Your task to perform on an android device: See recent photos Image 0: 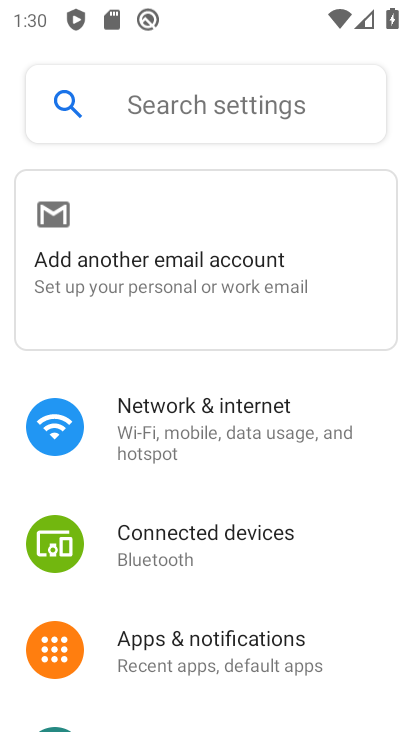
Step 0: press home button
Your task to perform on an android device: See recent photos Image 1: 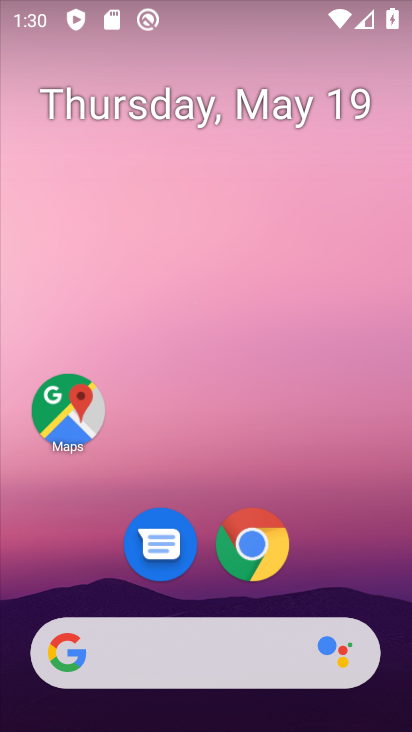
Step 1: drag from (213, 697) to (225, 242)
Your task to perform on an android device: See recent photos Image 2: 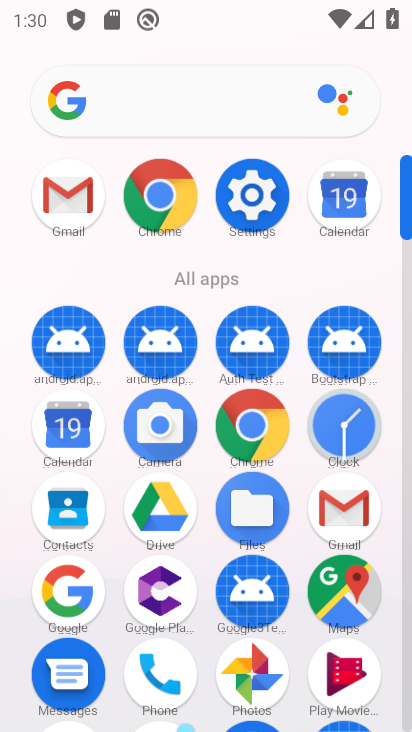
Step 2: click (254, 661)
Your task to perform on an android device: See recent photos Image 3: 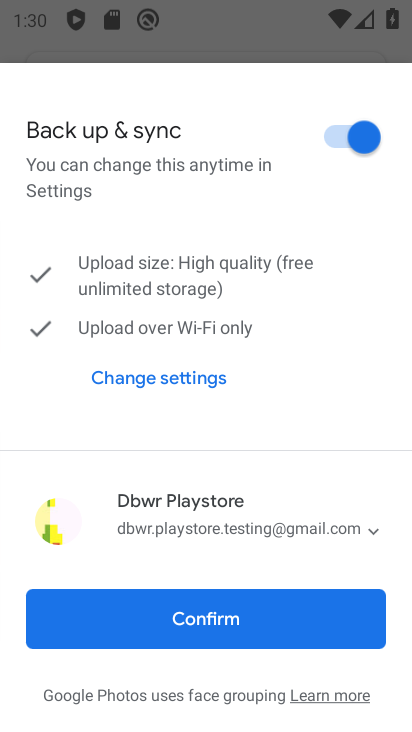
Step 3: click (255, 622)
Your task to perform on an android device: See recent photos Image 4: 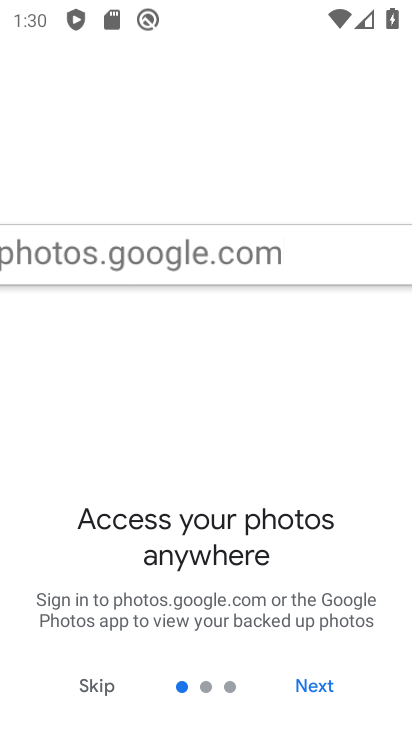
Step 4: click (316, 680)
Your task to perform on an android device: See recent photos Image 5: 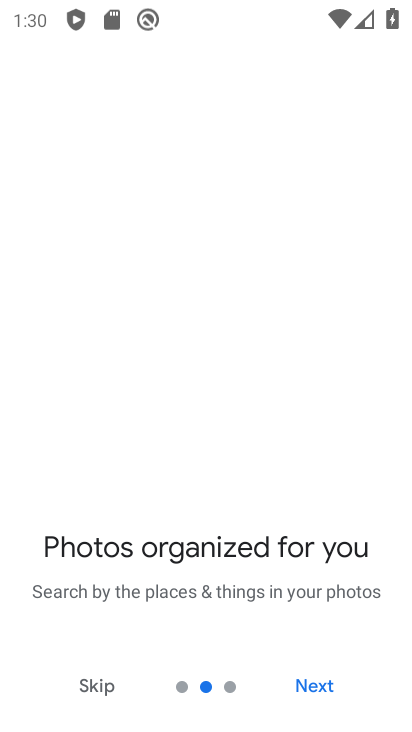
Step 5: click (311, 693)
Your task to perform on an android device: See recent photos Image 6: 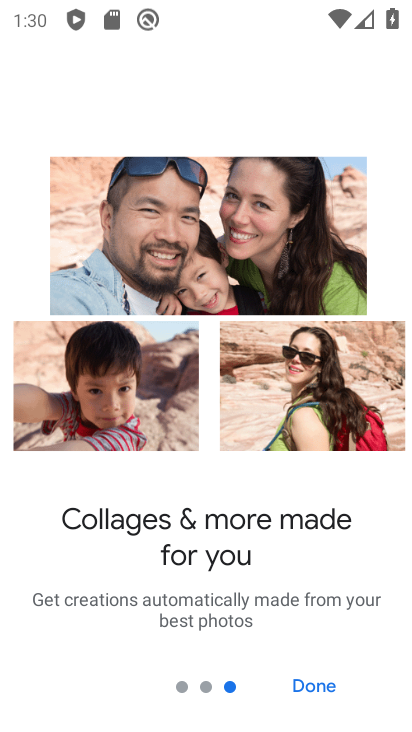
Step 6: click (311, 693)
Your task to perform on an android device: See recent photos Image 7: 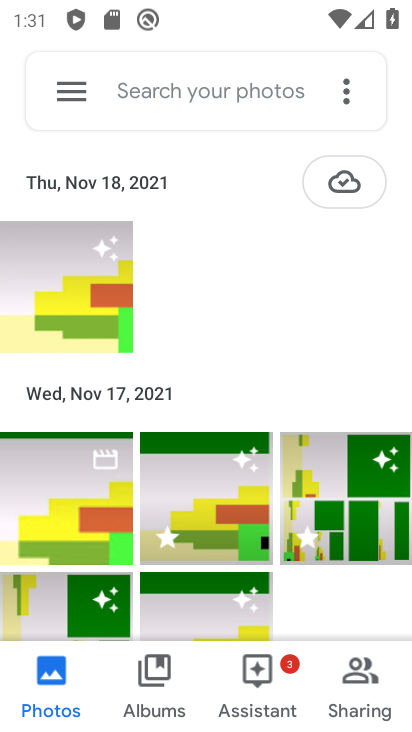
Step 7: task complete